Your task to perform on an android device: open app "Etsy: Buy & Sell Unique Items" (install if not already installed) and go to login screen Image 0: 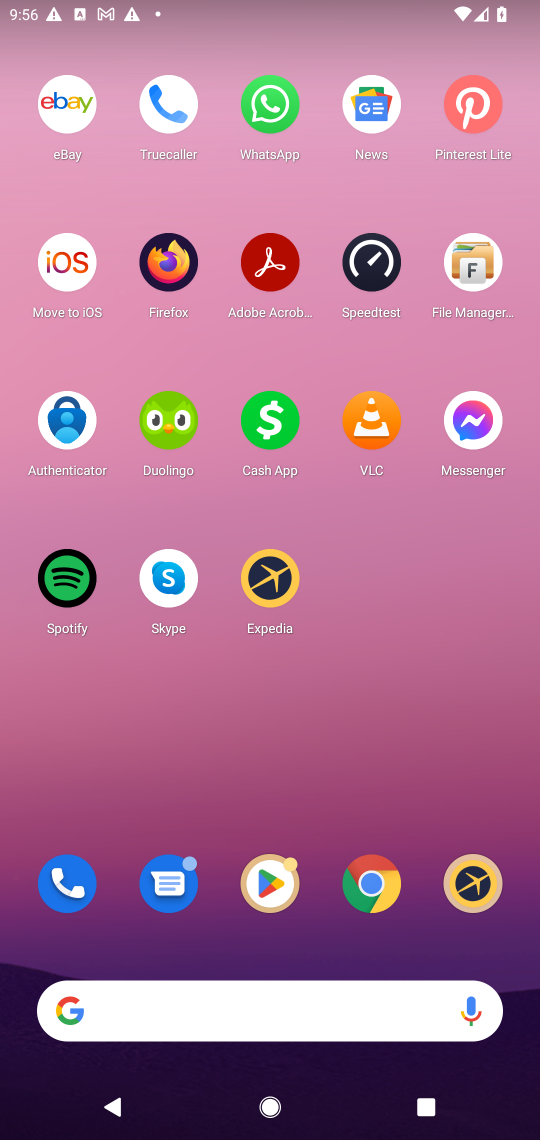
Step 0: click (273, 877)
Your task to perform on an android device: open app "Etsy: Buy & Sell Unique Items" (install if not already installed) and go to login screen Image 1: 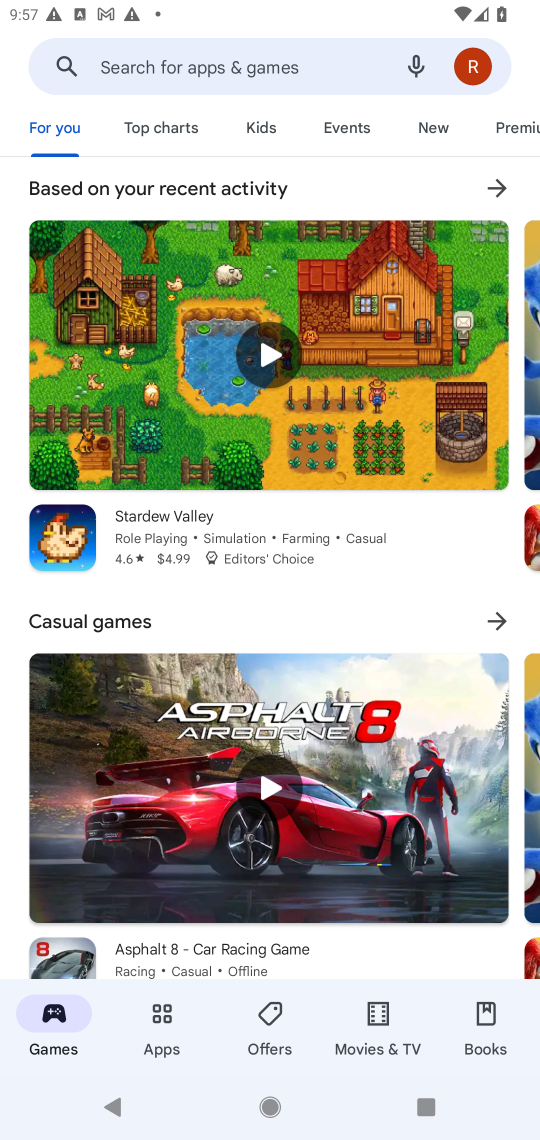
Step 1: click (294, 69)
Your task to perform on an android device: open app "Etsy: Buy & Sell Unique Items" (install if not already installed) and go to login screen Image 2: 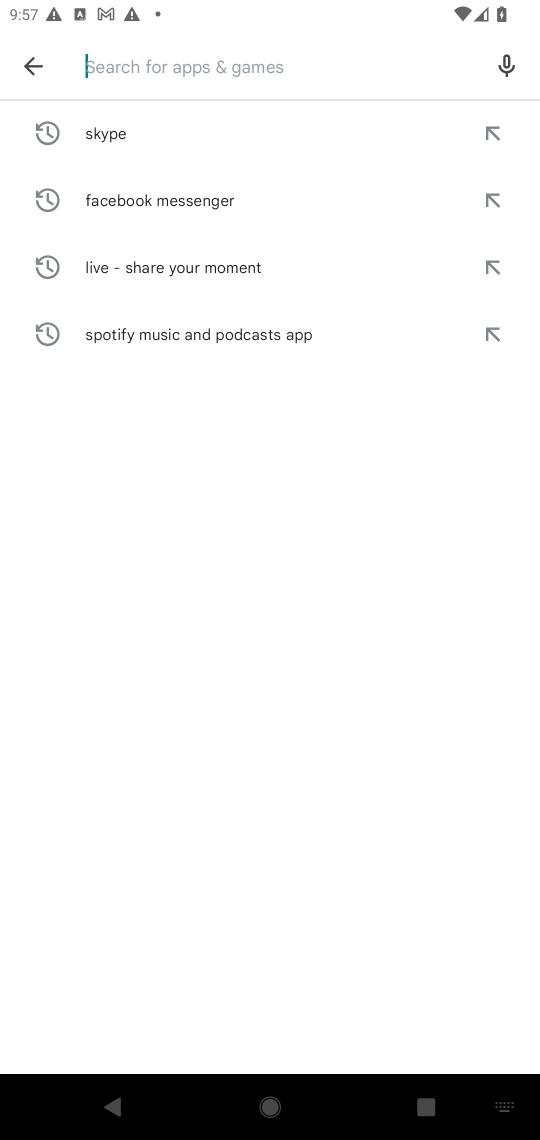
Step 2: click (253, 62)
Your task to perform on an android device: open app "Etsy: Buy & Sell Unique Items" (install if not already installed) and go to login screen Image 3: 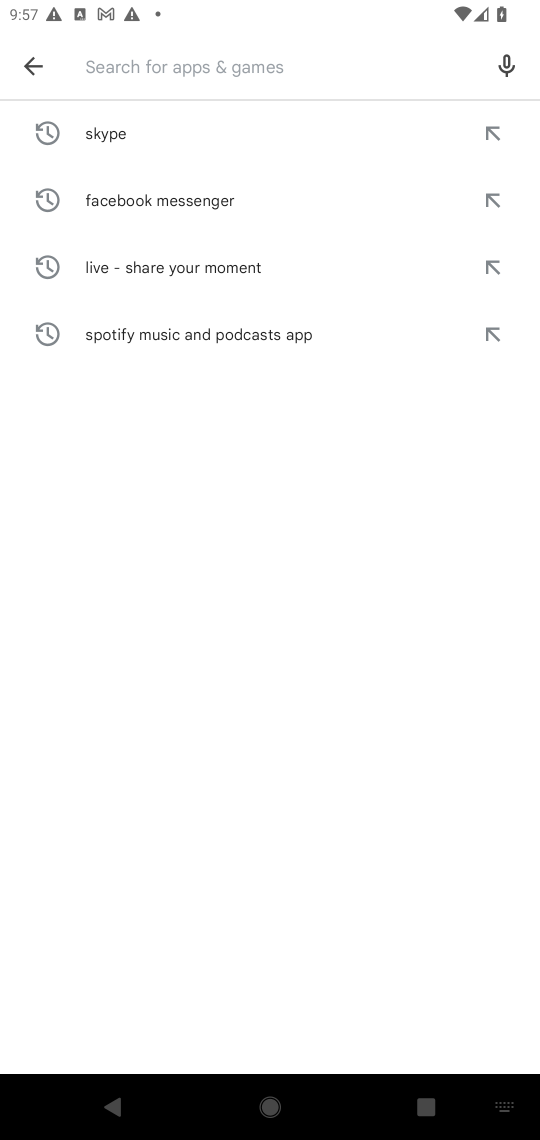
Step 3: type "Etsy: Buy & Sell Unique Items"
Your task to perform on an android device: open app "Etsy: Buy & Sell Unique Items" (install if not already installed) and go to login screen Image 4: 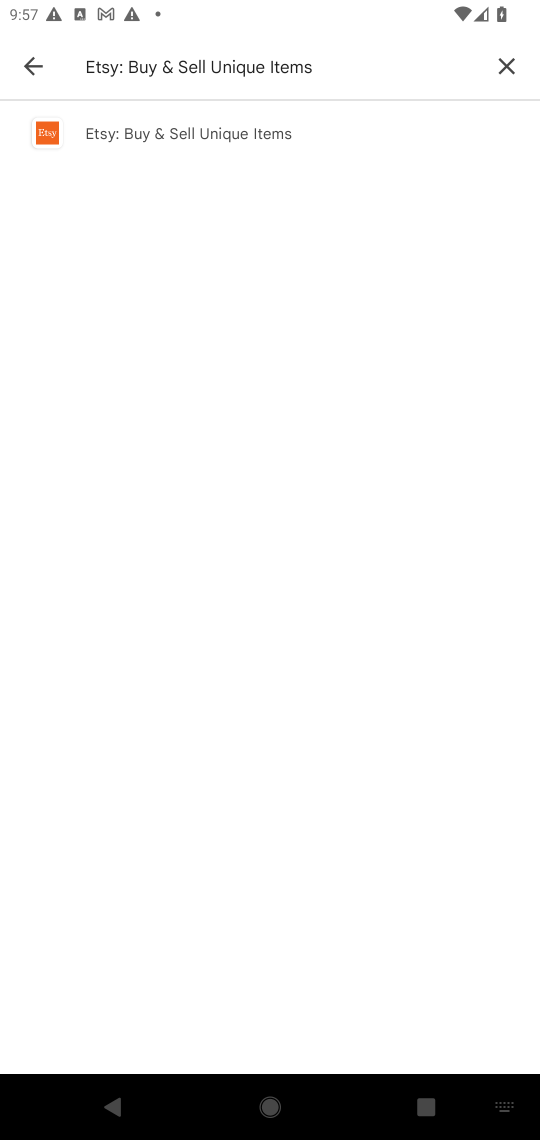
Step 4: click (155, 140)
Your task to perform on an android device: open app "Etsy: Buy & Sell Unique Items" (install if not already installed) and go to login screen Image 5: 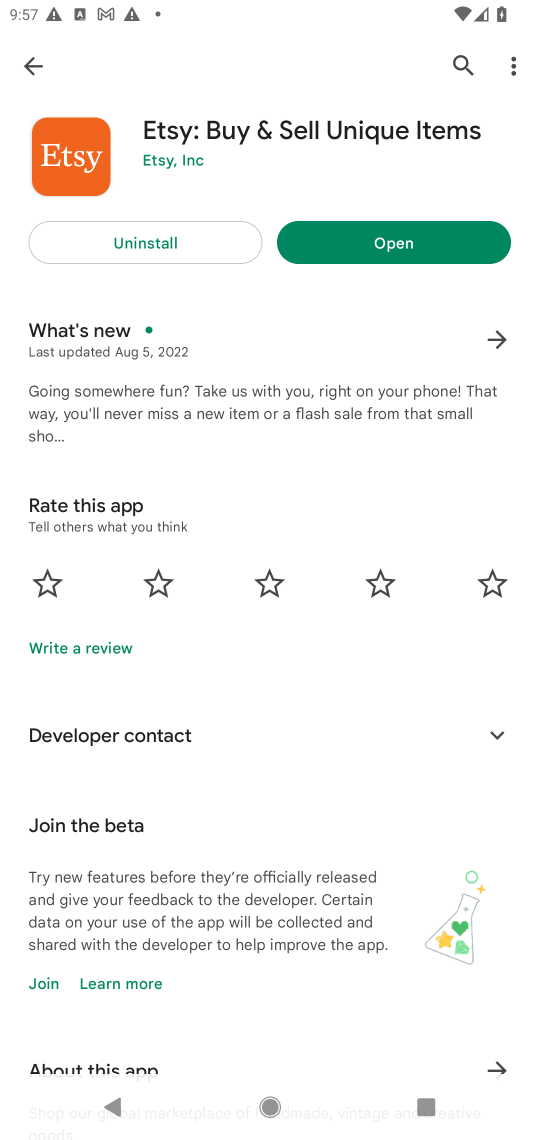
Step 5: click (337, 245)
Your task to perform on an android device: open app "Etsy: Buy & Sell Unique Items" (install if not already installed) and go to login screen Image 6: 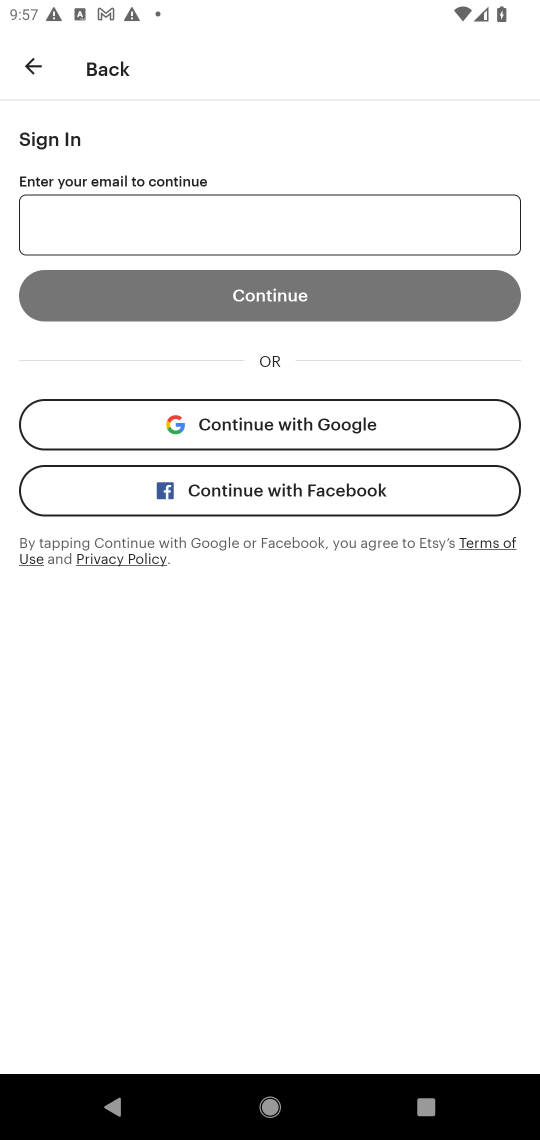
Step 6: task complete